Your task to perform on an android device: Open network settings Image 0: 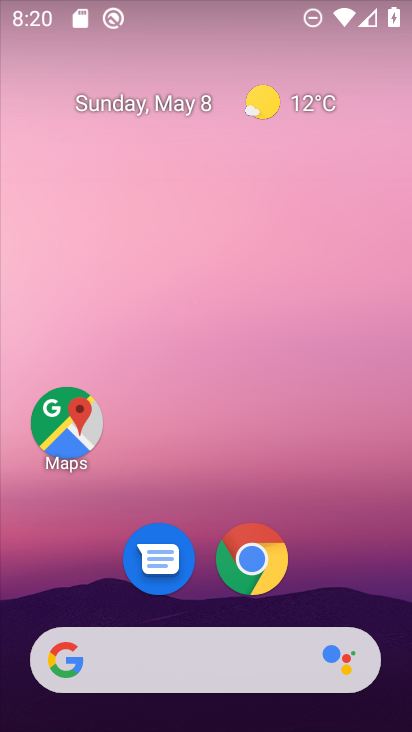
Step 0: drag from (346, 617) to (300, 1)
Your task to perform on an android device: Open network settings Image 1: 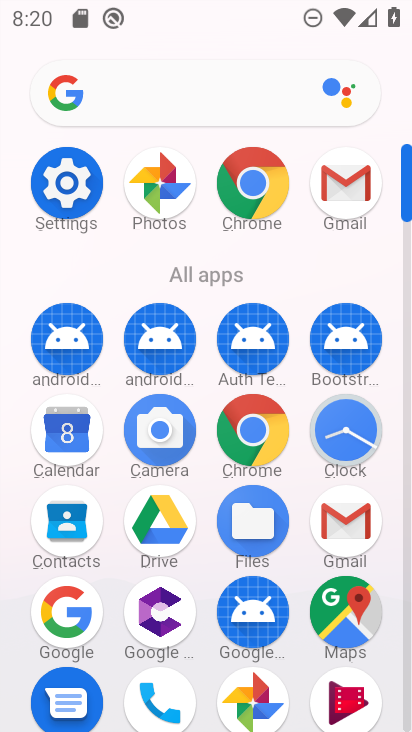
Step 1: click (71, 170)
Your task to perform on an android device: Open network settings Image 2: 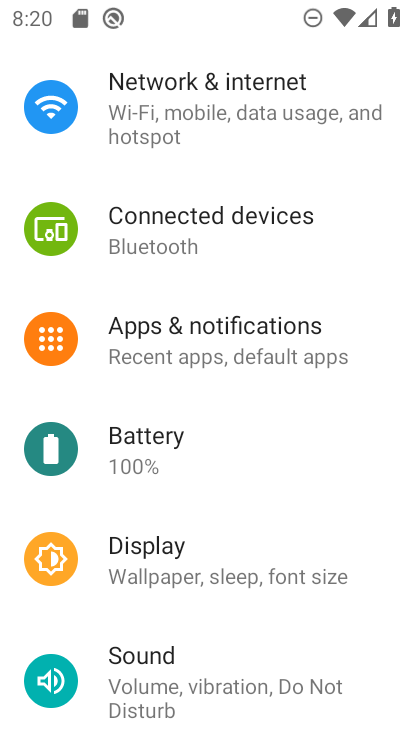
Step 2: click (161, 123)
Your task to perform on an android device: Open network settings Image 3: 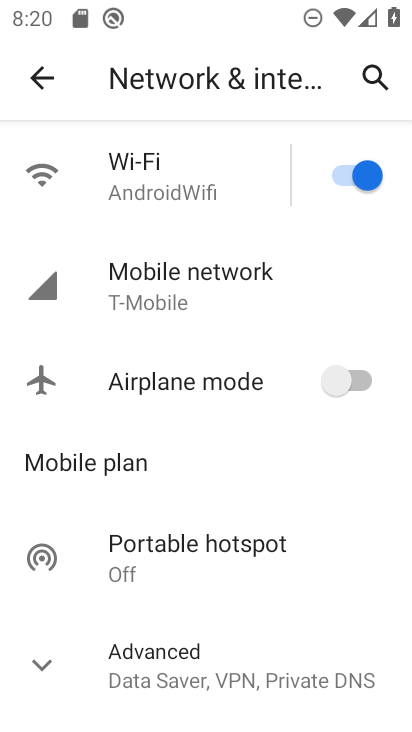
Step 3: drag from (171, 586) to (158, 384)
Your task to perform on an android device: Open network settings Image 4: 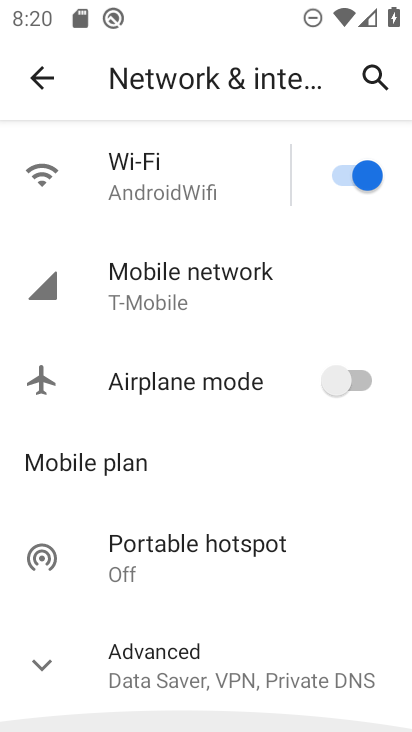
Step 4: click (154, 280)
Your task to perform on an android device: Open network settings Image 5: 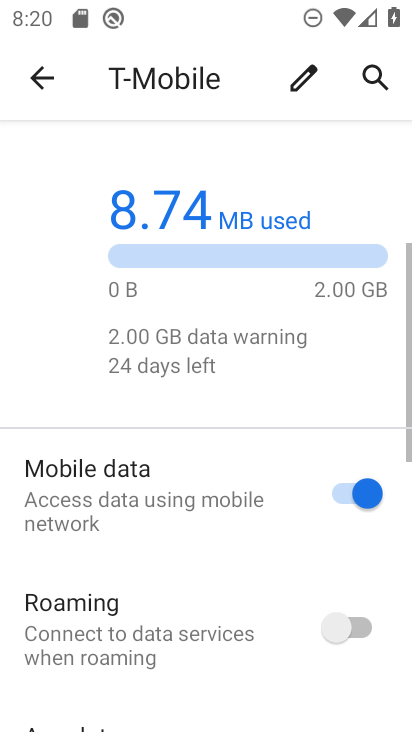
Step 5: drag from (254, 572) to (239, 129)
Your task to perform on an android device: Open network settings Image 6: 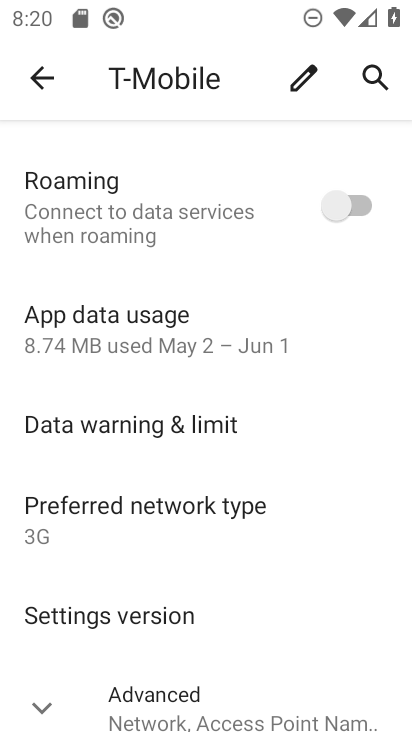
Step 6: drag from (76, 595) to (119, 250)
Your task to perform on an android device: Open network settings Image 7: 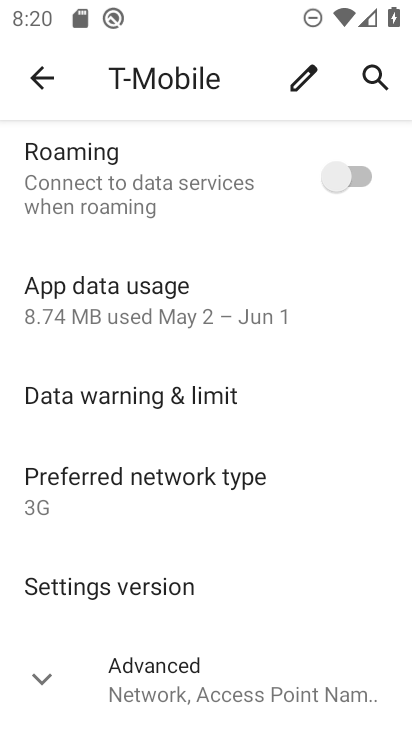
Step 7: click (33, 680)
Your task to perform on an android device: Open network settings Image 8: 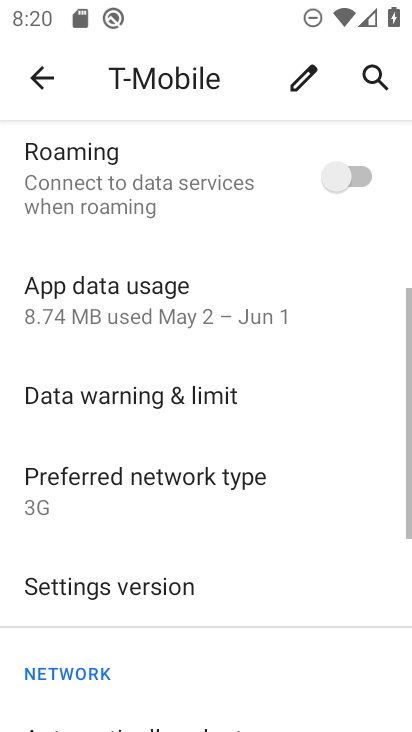
Step 8: task complete